Your task to perform on an android device: Go to wifi settings Image 0: 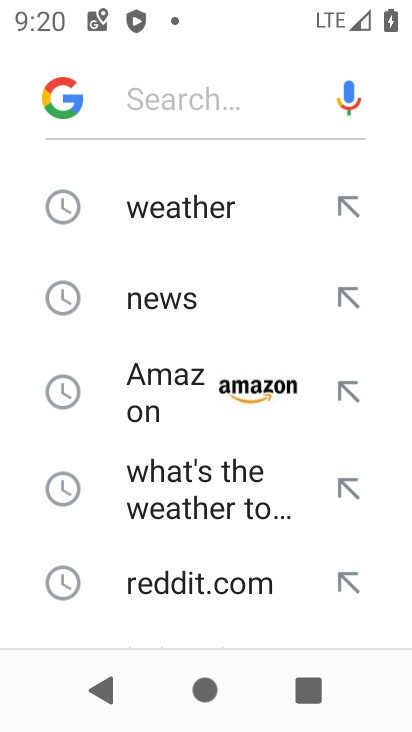
Step 0: click (403, 556)
Your task to perform on an android device: Go to wifi settings Image 1: 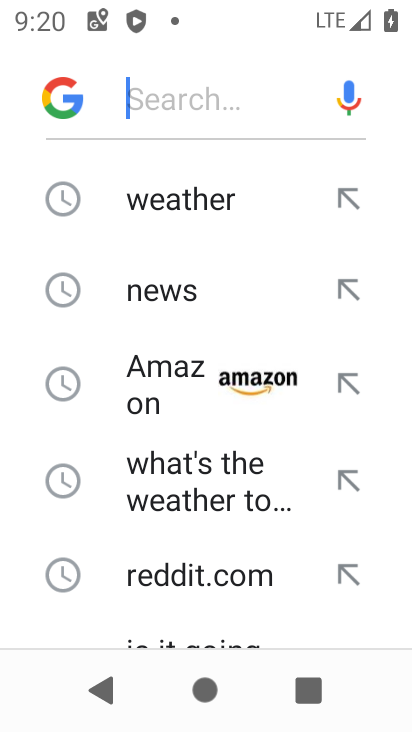
Step 1: press home button
Your task to perform on an android device: Go to wifi settings Image 2: 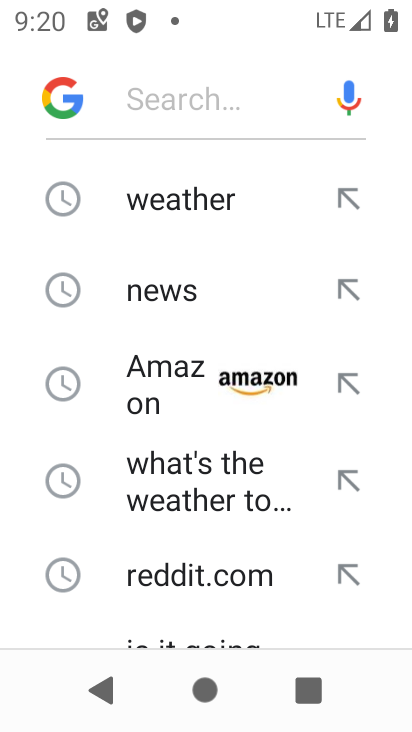
Step 2: drag from (408, 542) to (411, 605)
Your task to perform on an android device: Go to wifi settings Image 3: 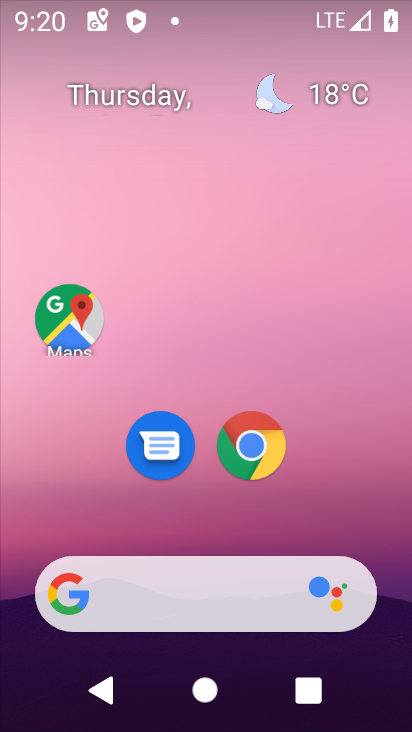
Step 3: drag from (392, 584) to (311, 195)
Your task to perform on an android device: Go to wifi settings Image 4: 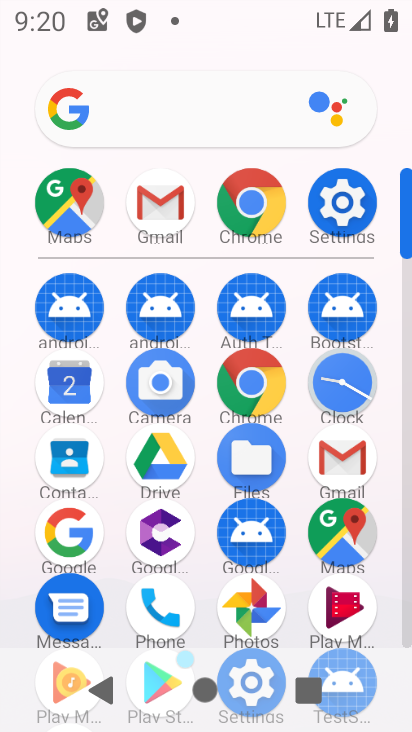
Step 4: click (343, 198)
Your task to perform on an android device: Go to wifi settings Image 5: 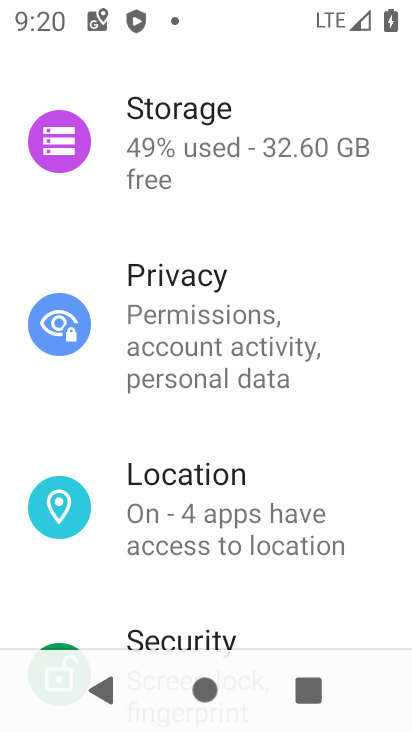
Step 5: drag from (254, 218) to (261, 588)
Your task to perform on an android device: Go to wifi settings Image 6: 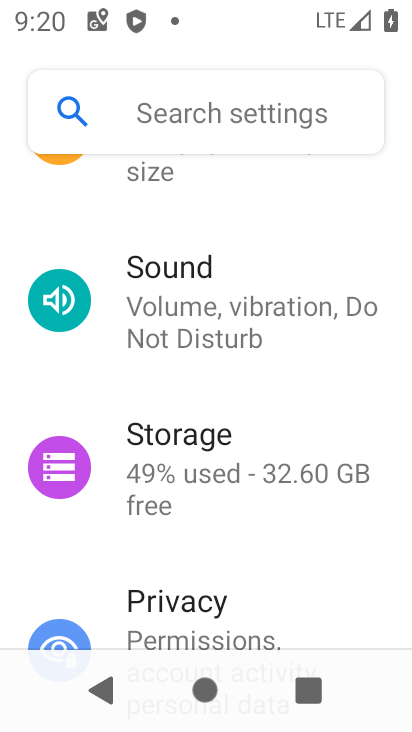
Step 6: drag from (215, 237) to (206, 585)
Your task to perform on an android device: Go to wifi settings Image 7: 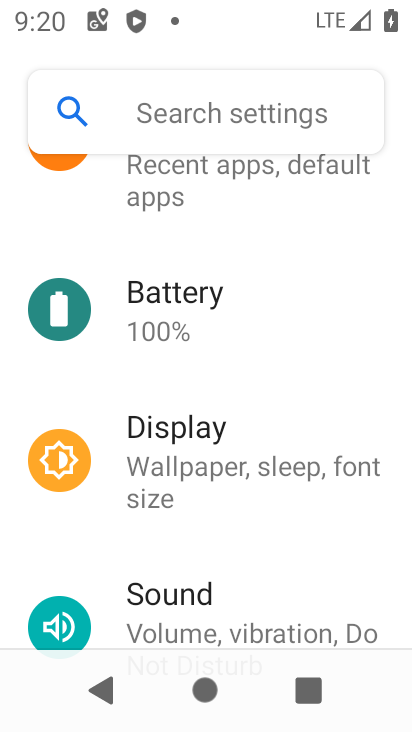
Step 7: drag from (180, 233) to (194, 585)
Your task to perform on an android device: Go to wifi settings Image 8: 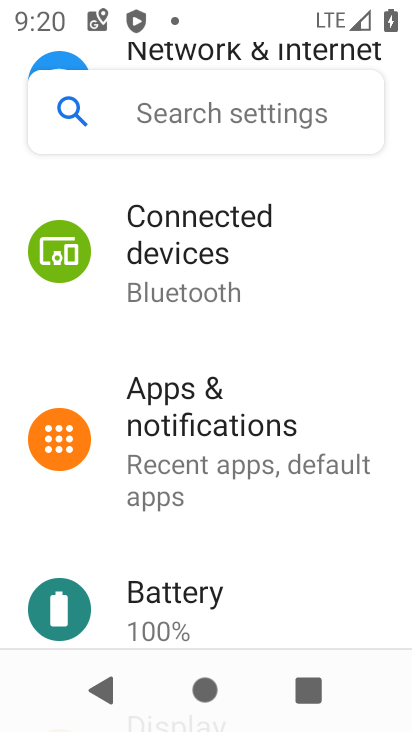
Step 8: drag from (171, 314) to (201, 625)
Your task to perform on an android device: Go to wifi settings Image 9: 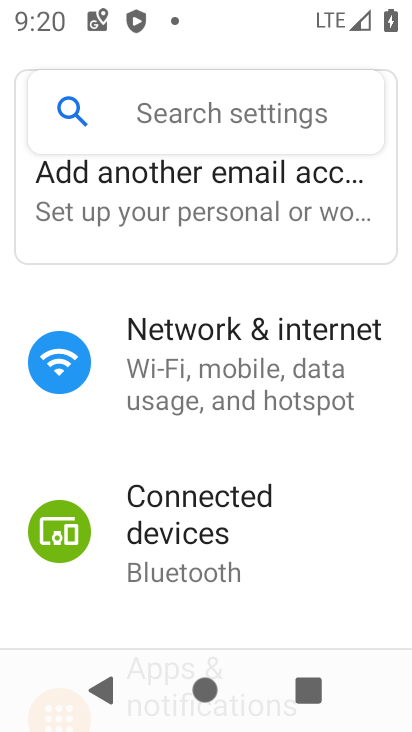
Step 9: click (189, 402)
Your task to perform on an android device: Go to wifi settings Image 10: 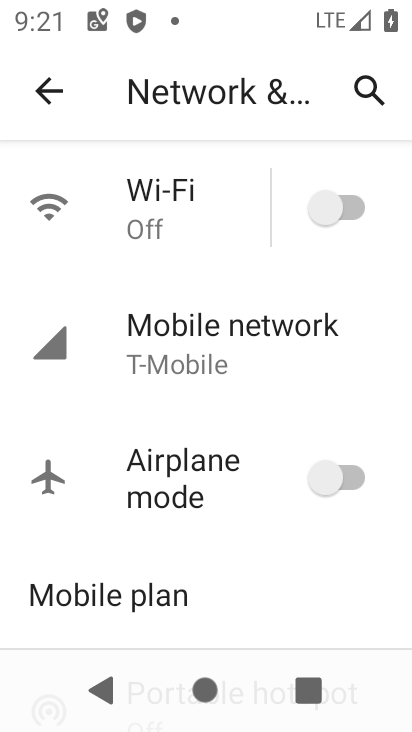
Step 10: click (156, 215)
Your task to perform on an android device: Go to wifi settings Image 11: 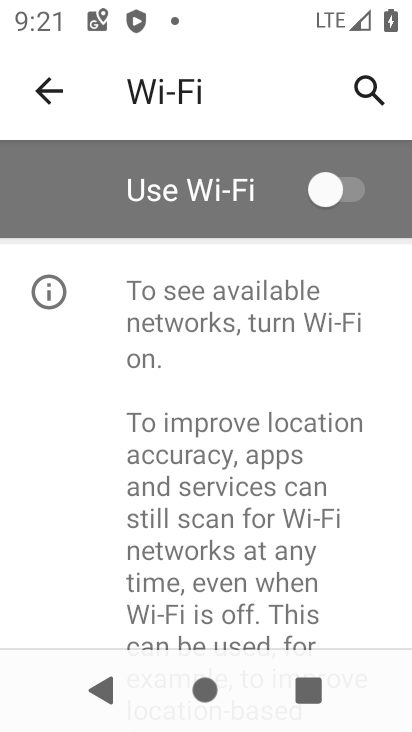
Step 11: task complete